Your task to perform on an android device: Is it going to rain tomorrow? Image 0: 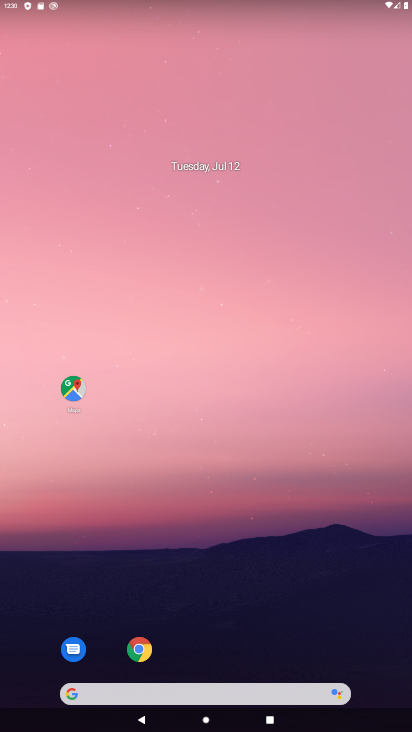
Step 0: click (256, 686)
Your task to perform on an android device: Is it going to rain tomorrow? Image 1: 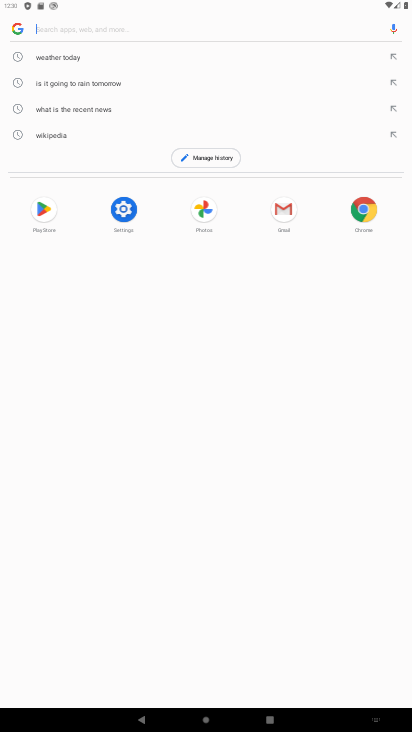
Step 1: click (105, 89)
Your task to perform on an android device: Is it going to rain tomorrow? Image 2: 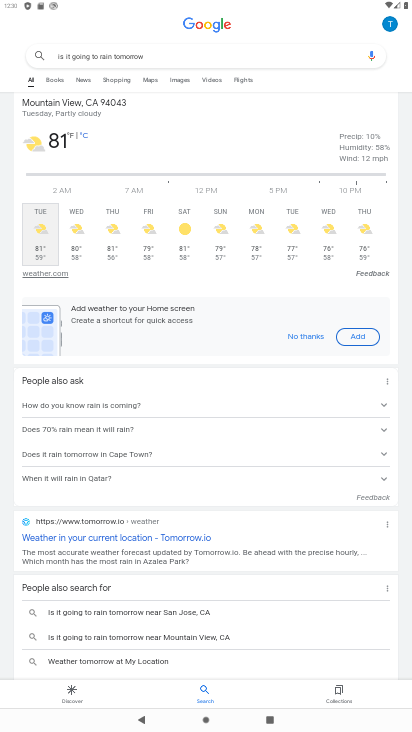
Step 2: task complete